Your task to perform on an android device: Is it going to rain tomorrow? Image 0: 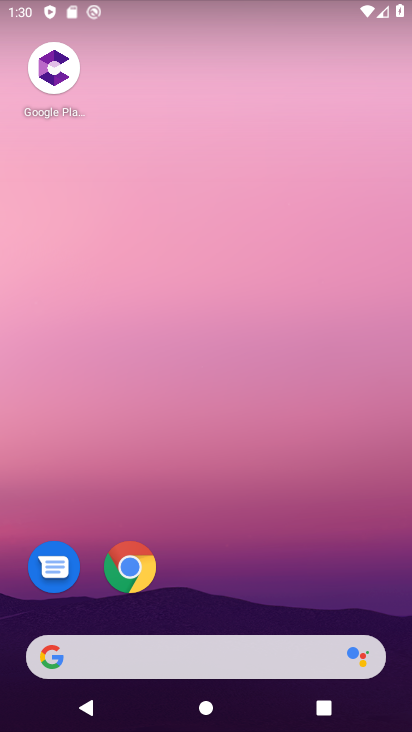
Step 0: click (130, 660)
Your task to perform on an android device: Is it going to rain tomorrow? Image 1: 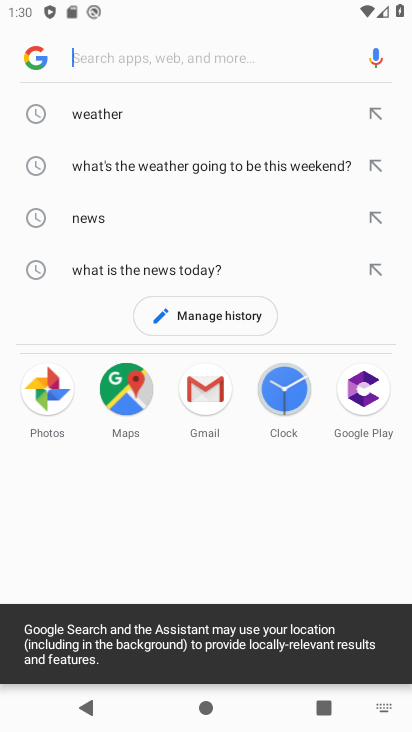
Step 1: click (103, 111)
Your task to perform on an android device: Is it going to rain tomorrow? Image 2: 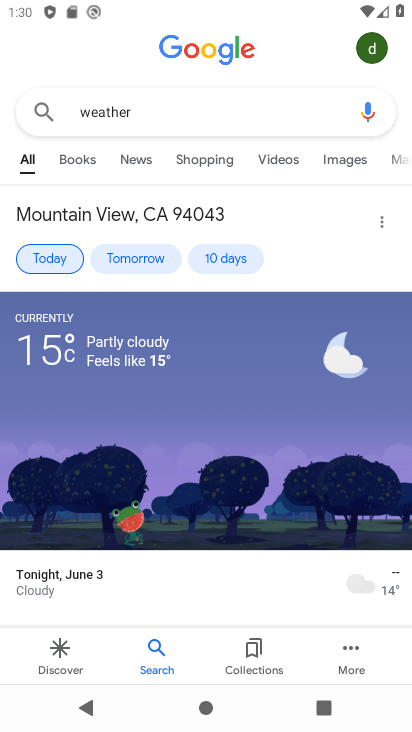
Step 2: click (153, 259)
Your task to perform on an android device: Is it going to rain tomorrow? Image 3: 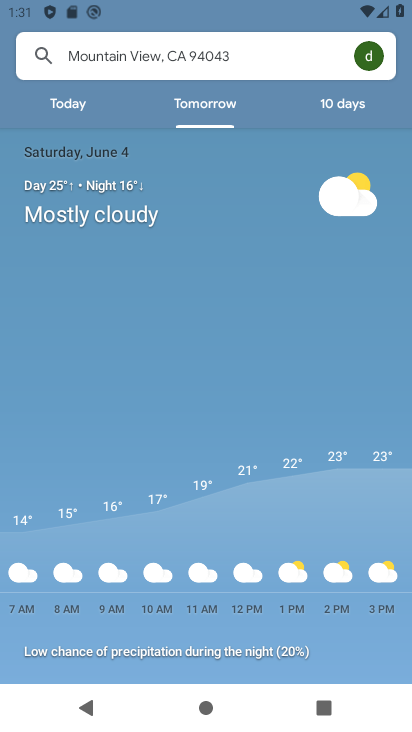
Step 3: task complete